Your task to perform on an android device: refresh tabs in the chrome app Image 0: 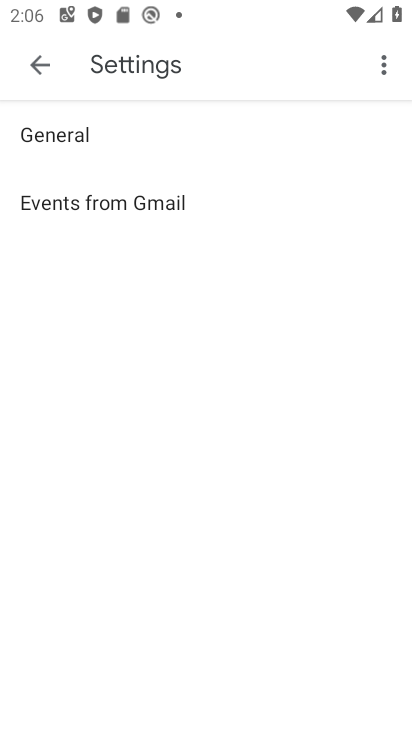
Step 0: drag from (343, 547) to (163, 270)
Your task to perform on an android device: refresh tabs in the chrome app Image 1: 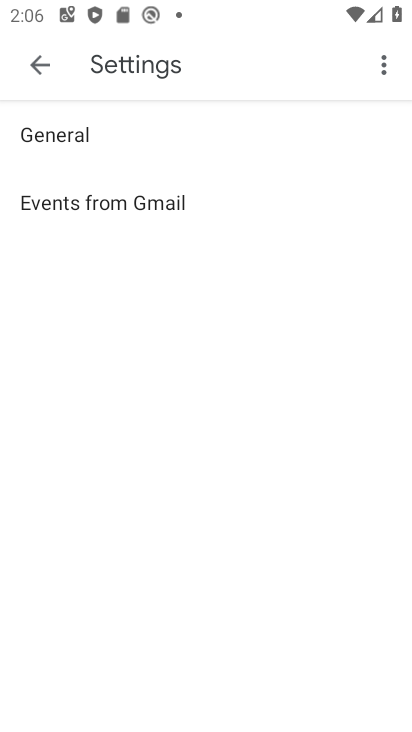
Step 1: click (33, 68)
Your task to perform on an android device: refresh tabs in the chrome app Image 2: 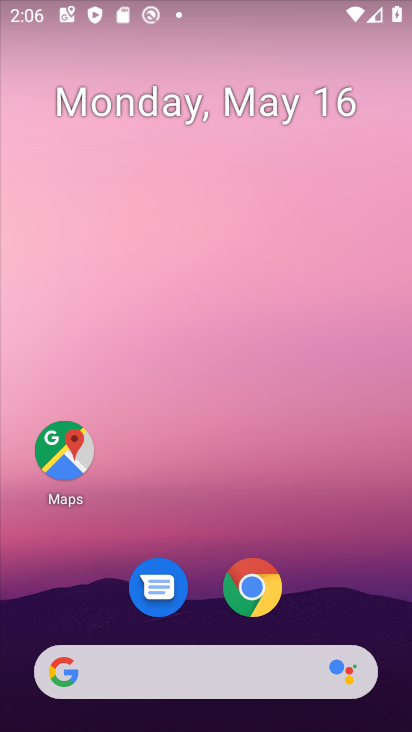
Step 2: drag from (297, 605) to (263, 184)
Your task to perform on an android device: refresh tabs in the chrome app Image 3: 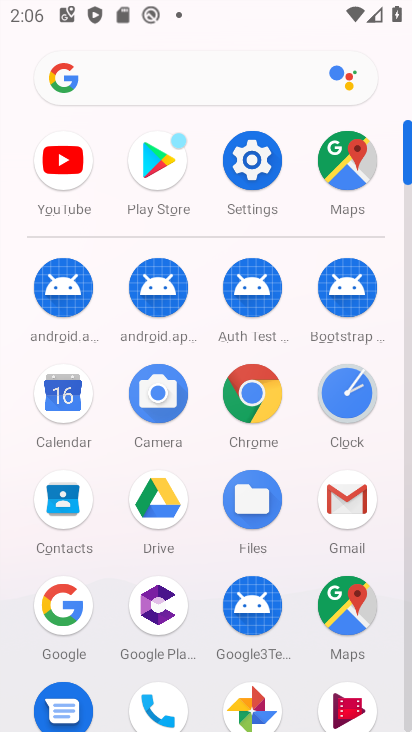
Step 3: click (241, 395)
Your task to perform on an android device: refresh tabs in the chrome app Image 4: 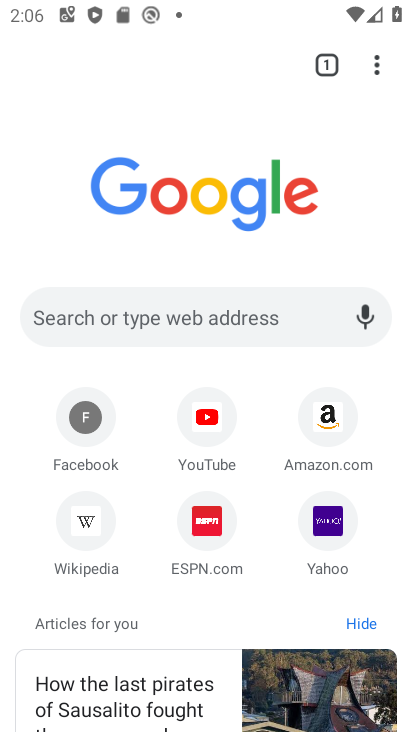
Step 4: click (376, 62)
Your task to perform on an android device: refresh tabs in the chrome app Image 5: 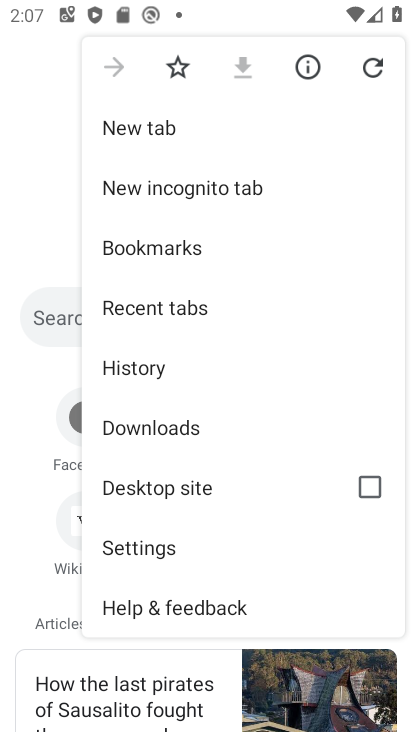
Step 5: click (380, 79)
Your task to perform on an android device: refresh tabs in the chrome app Image 6: 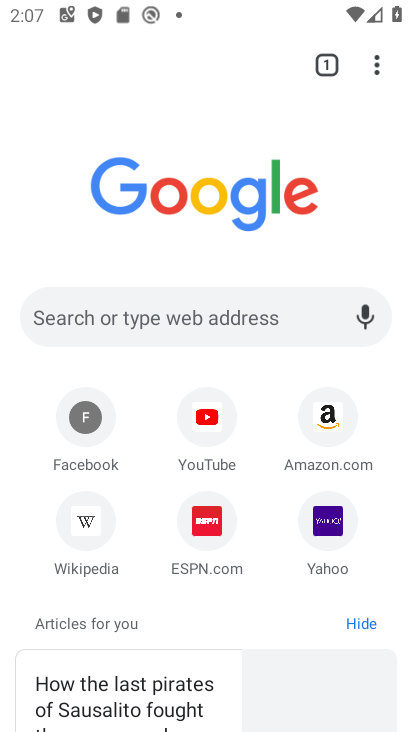
Step 6: click (375, 68)
Your task to perform on an android device: refresh tabs in the chrome app Image 7: 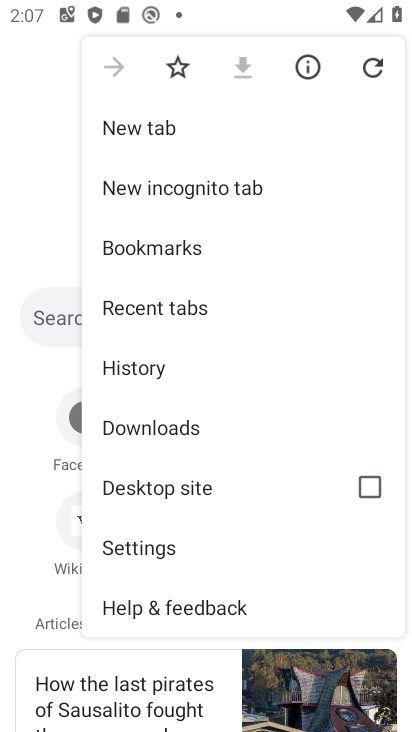
Step 7: task complete